Your task to perform on an android device: move a message to another label in the gmail app Image 0: 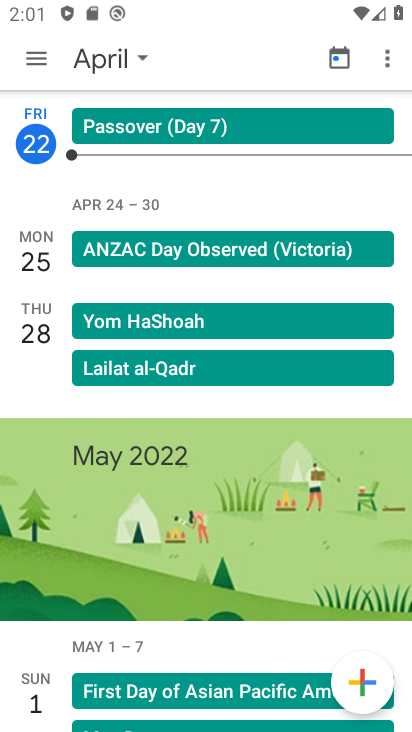
Step 0: press back button
Your task to perform on an android device: move a message to another label in the gmail app Image 1: 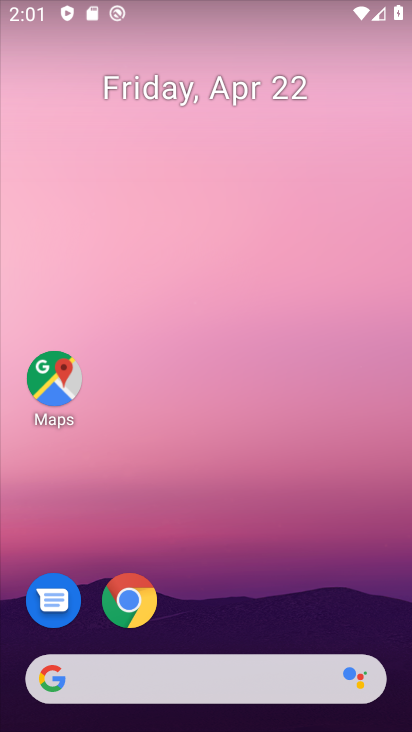
Step 1: drag from (198, 655) to (360, 68)
Your task to perform on an android device: move a message to another label in the gmail app Image 2: 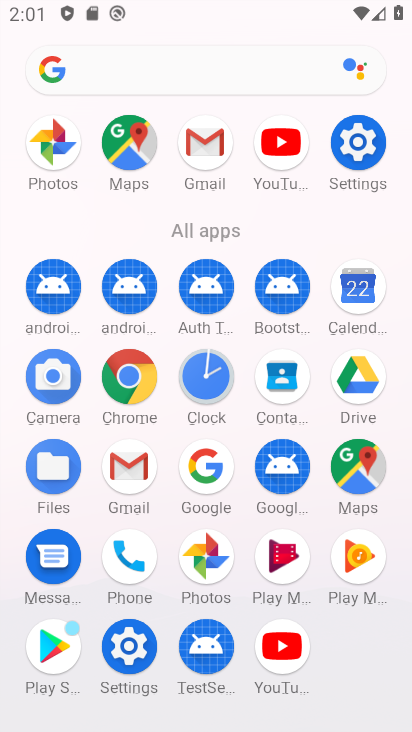
Step 2: click (124, 477)
Your task to perform on an android device: move a message to another label in the gmail app Image 3: 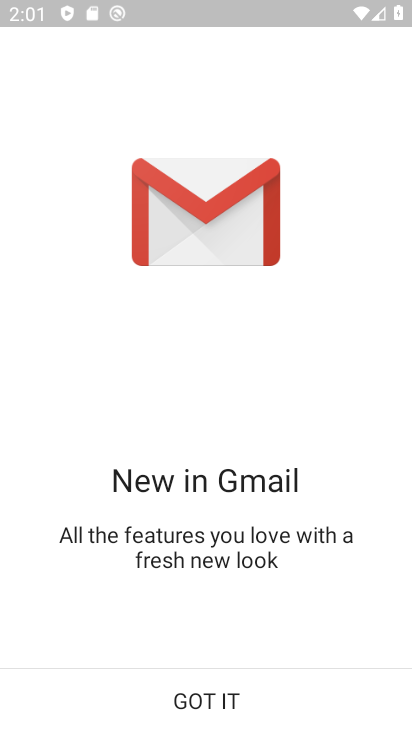
Step 3: click (255, 703)
Your task to perform on an android device: move a message to another label in the gmail app Image 4: 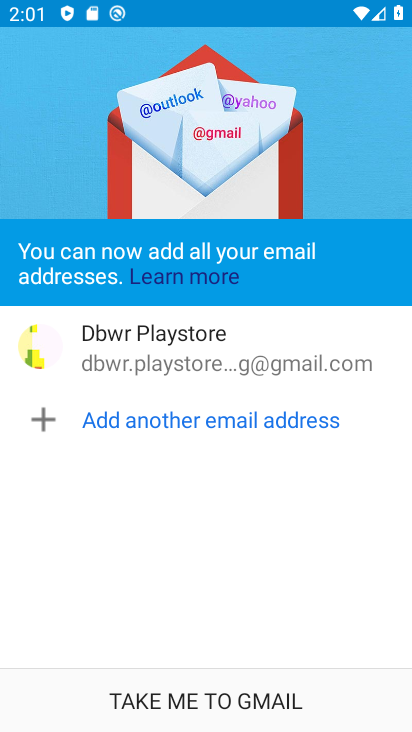
Step 4: click (255, 703)
Your task to perform on an android device: move a message to another label in the gmail app Image 5: 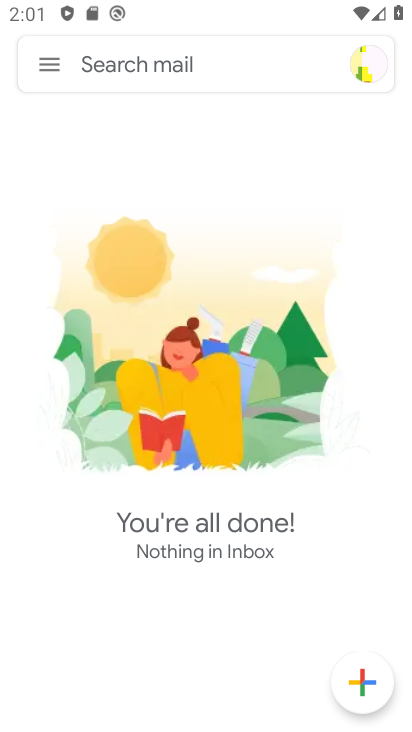
Step 5: click (47, 60)
Your task to perform on an android device: move a message to another label in the gmail app Image 6: 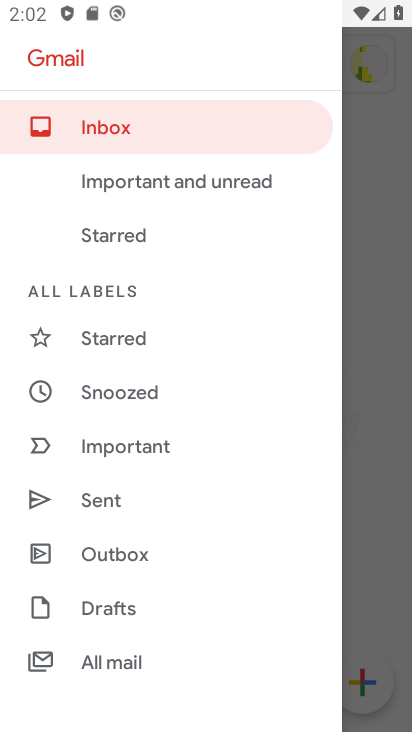
Step 6: drag from (157, 587) to (229, 294)
Your task to perform on an android device: move a message to another label in the gmail app Image 7: 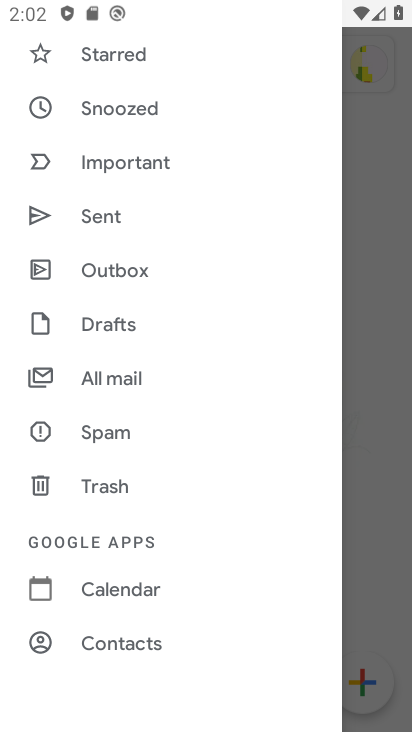
Step 7: click (142, 379)
Your task to perform on an android device: move a message to another label in the gmail app Image 8: 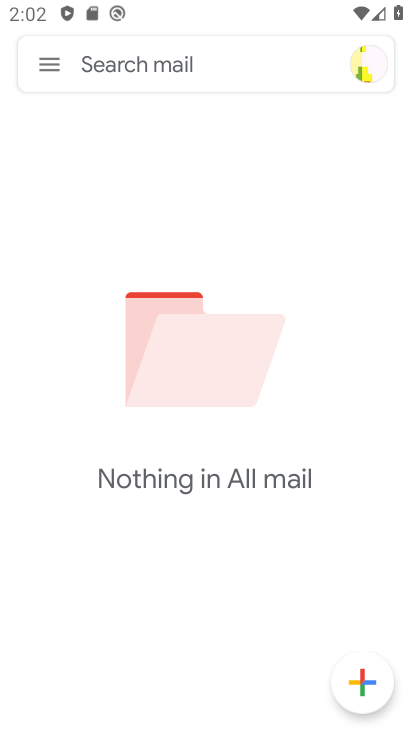
Step 8: task complete